Your task to perform on an android device: Open settings on Google Maps Image 0: 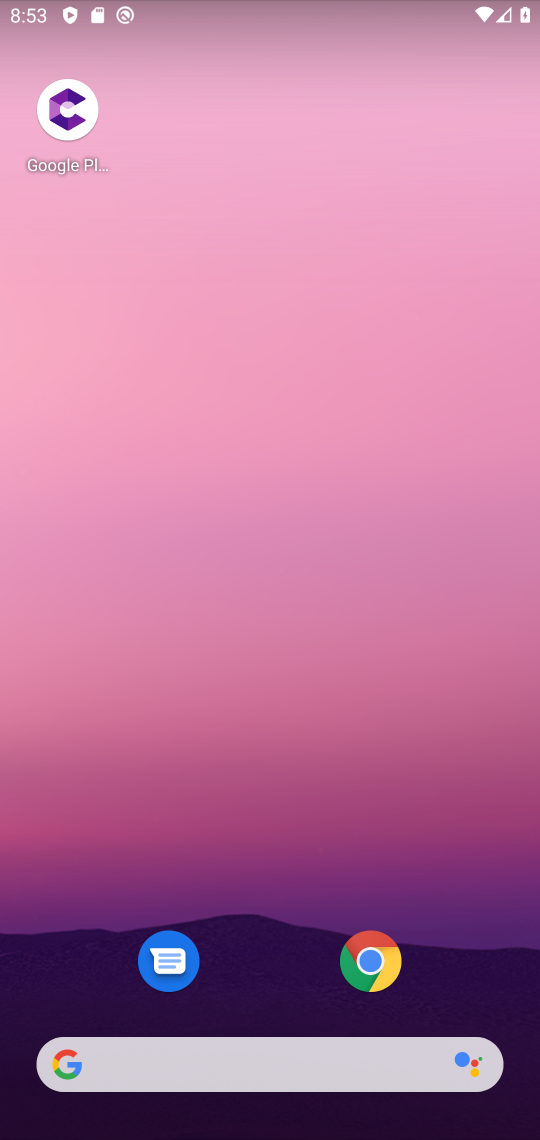
Step 0: drag from (266, 971) to (230, 161)
Your task to perform on an android device: Open settings on Google Maps Image 1: 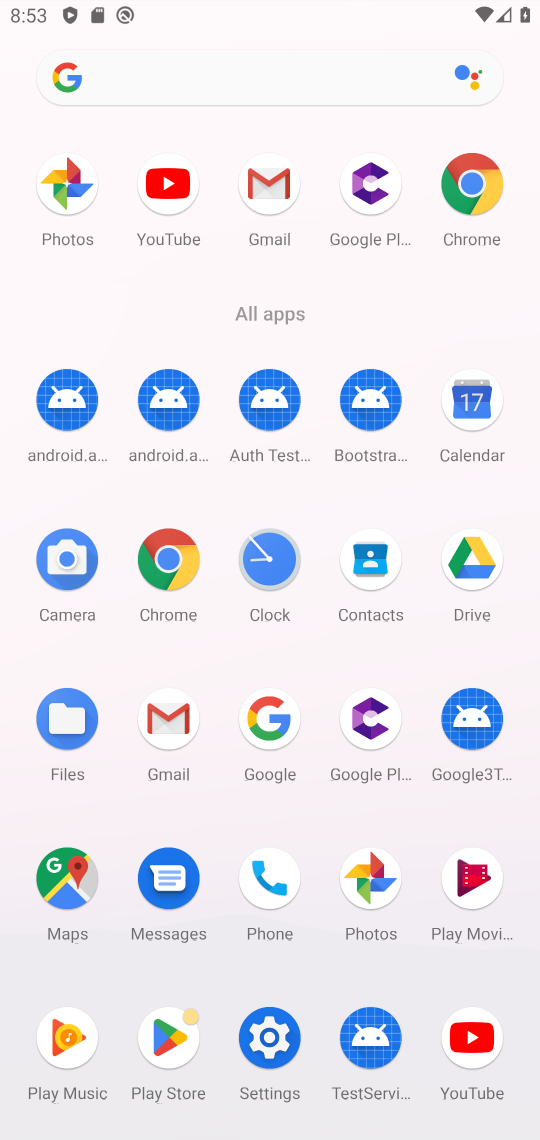
Step 1: click (67, 882)
Your task to perform on an android device: Open settings on Google Maps Image 2: 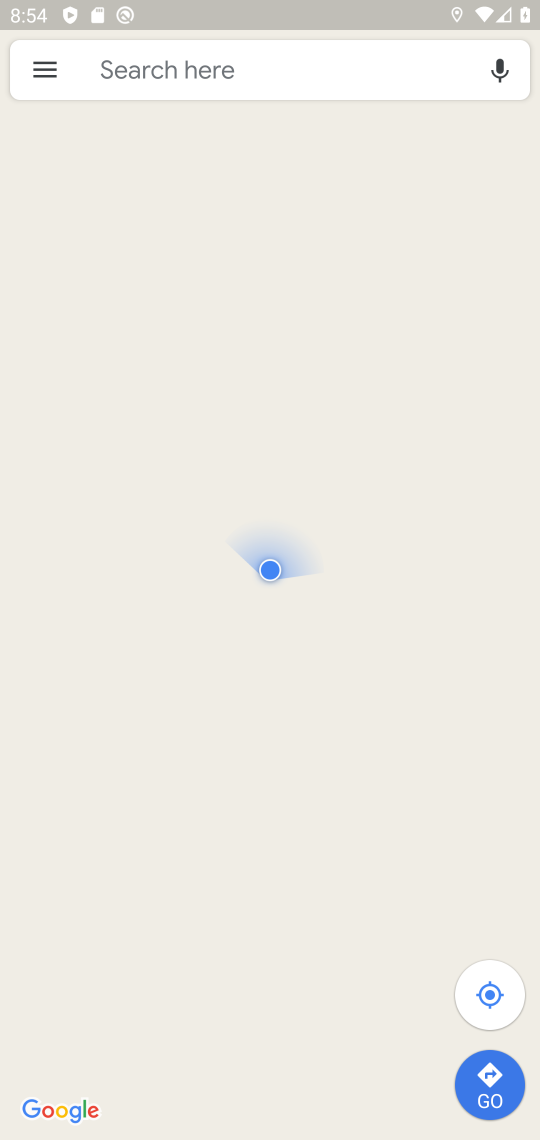
Step 2: click (51, 61)
Your task to perform on an android device: Open settings on Google Maps Image 3: 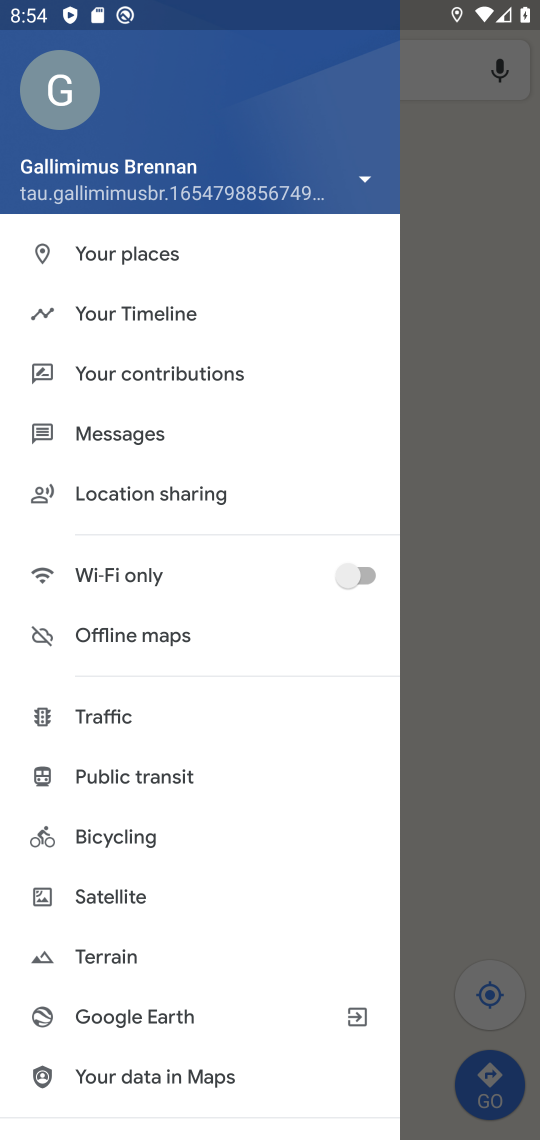
Step 3: drag from (182, 1004) to (211, 203)
Your task to perform on an android device: Open settings on Google Maps Image 4: 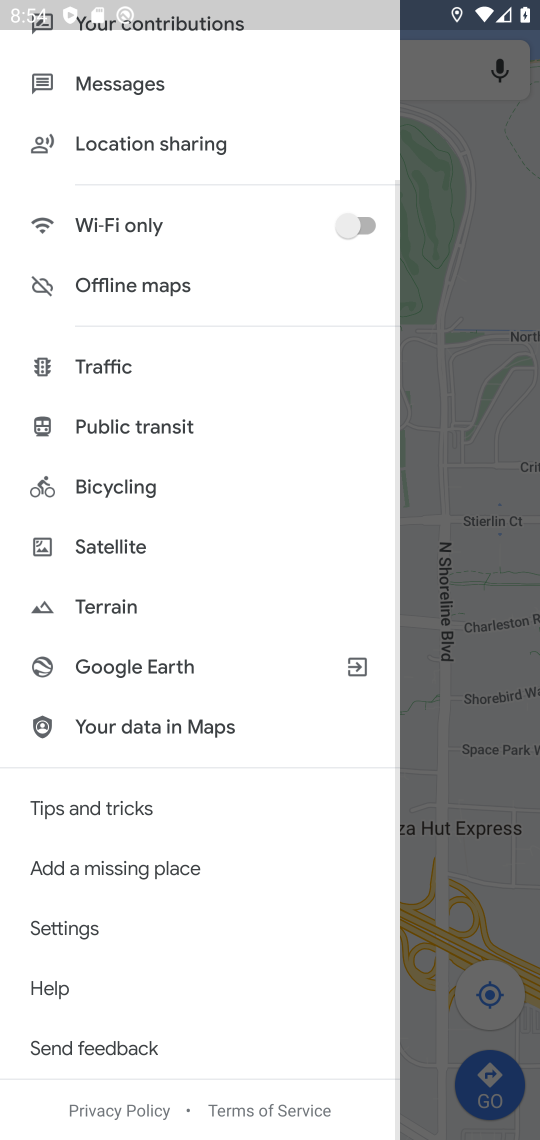
Step 4: click (72, 934)
Your task to perform on an android device: Open settings on Google Maps Image 5: 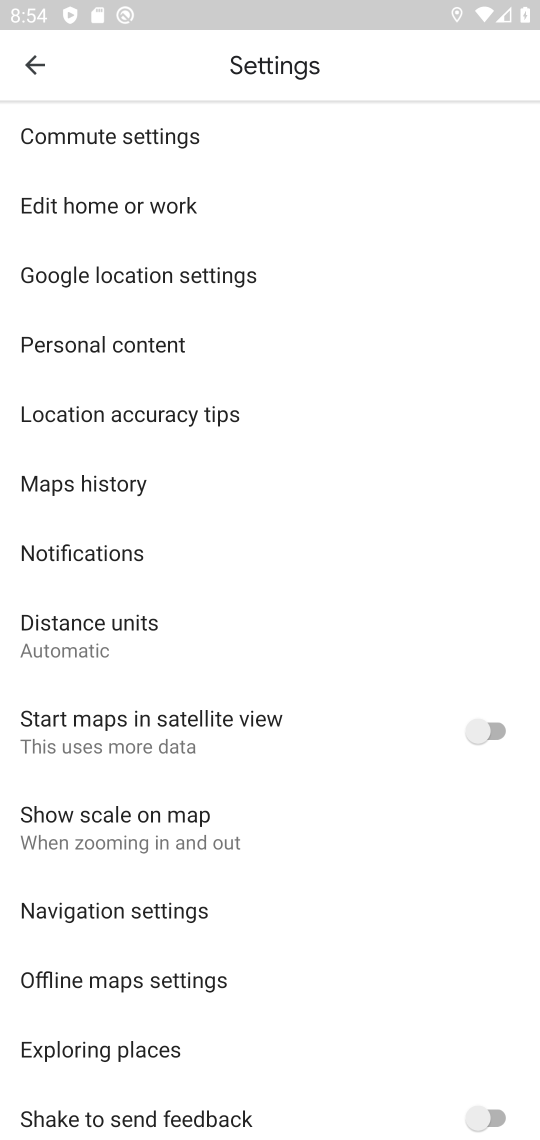
Step 5: task complete